Your task to perform on an android device: open chrome and create a bookmark for the current page Image 0: 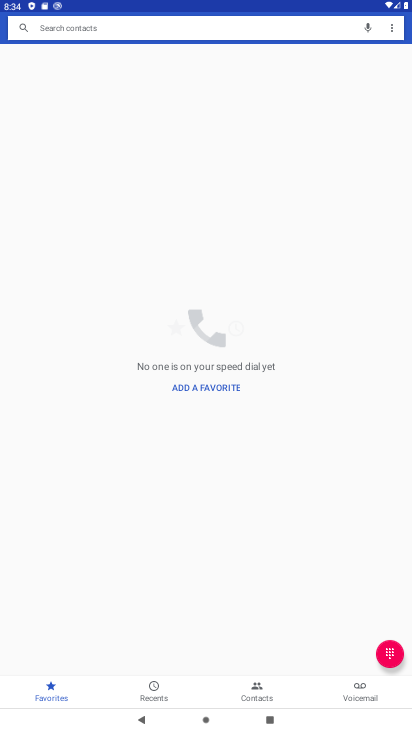
Step 0: drag from (224, 584) to (216, 203)
Your task to perform on an android device: open chrome and create a bookmark for the current page Image 1: 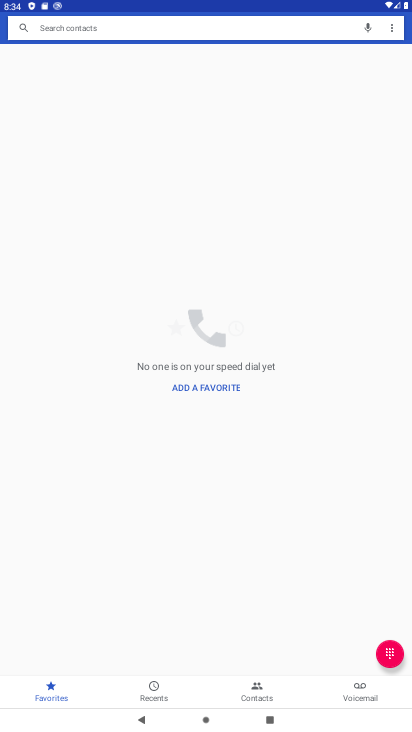
Step 1: drag from (291, 162) to (238, 647)
Your task to perform on an android device: open chrome and create a bookmark for the current page Image 2: 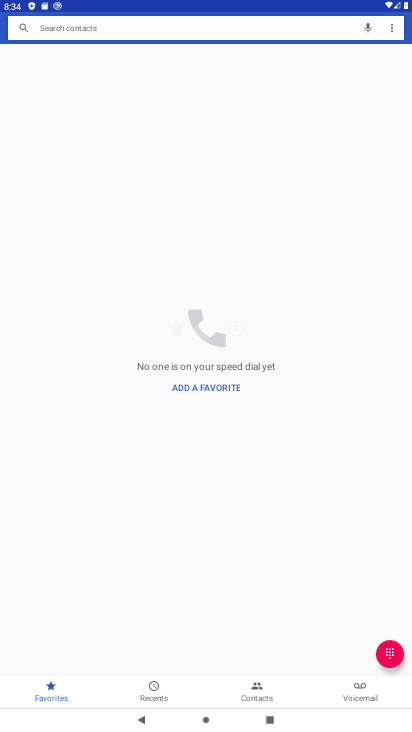
Step 2: press home button
Your task to perform on an android device: open chrome and create a bookmark for the current page Image 3: 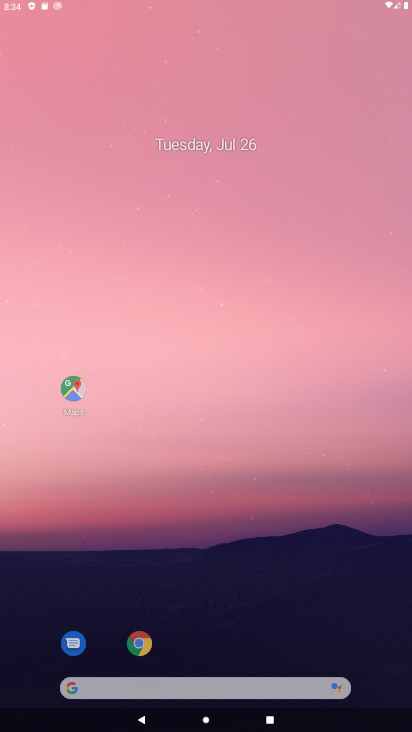
Step 3: drag from (177, 594) to (222, 82)
Your task to perform on an android device: open chrome and create a bookmark for the current page Image 4: 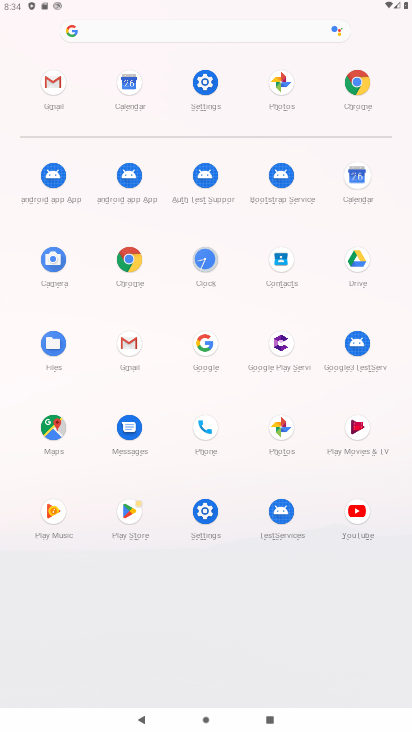
Step 4: click (128, 254)
Your task to perform on an android device: open chrome and create a bookmark for the current page Image 5: 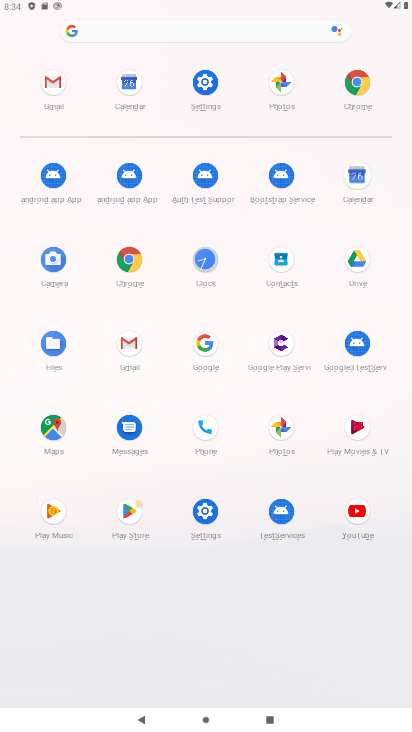
Step 5: click (128, 254)
Your task to perform on an android device: open chrome and create a bookmark for the current page Image 6: 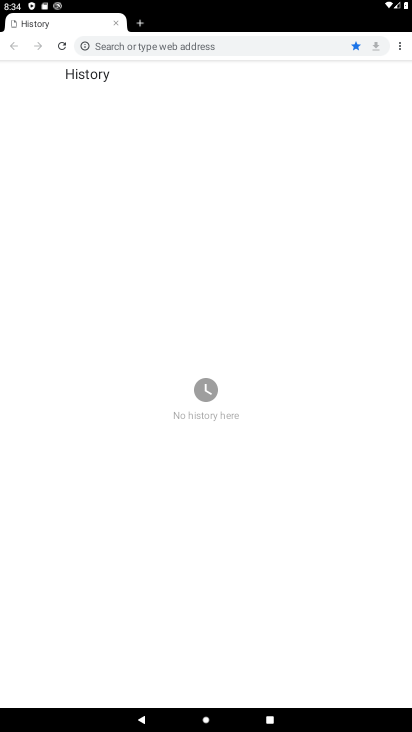
Step 6: task complete